Your task to perform on an android device: see creations saved in the google photos Image 0: 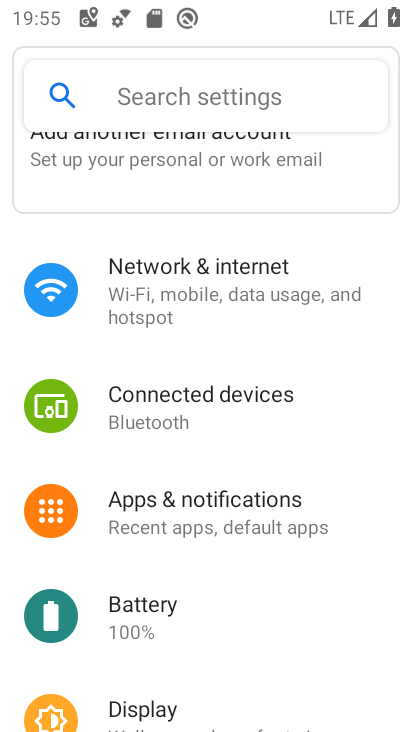
Step 0: press home button
Your task to perform on an android device: see creations saved in the google photos Image 1: 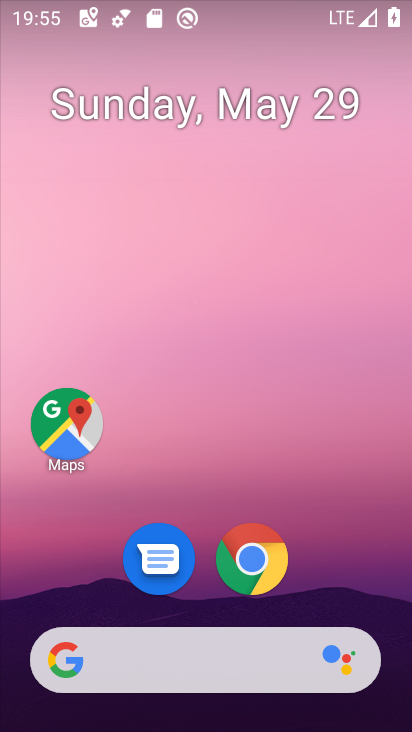
Step 1: drag from (353, 609) to (330, 242)
Your task to perform on an android device: see creations saved in the google photos Image 2: 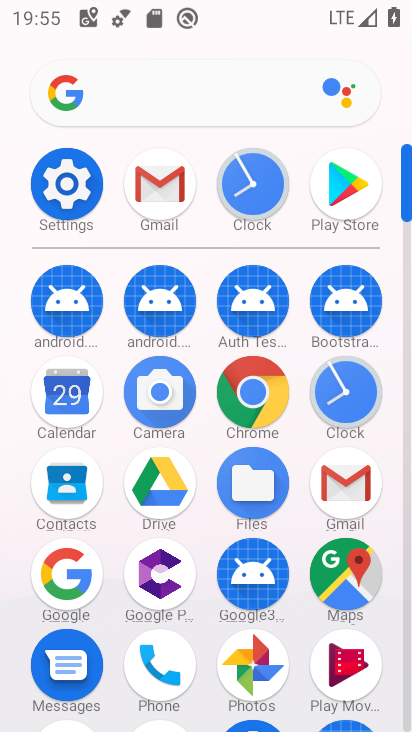
Step 2: click (261, 656)
Your task to perform on an android device: see creations saved in the google photos Image 3: 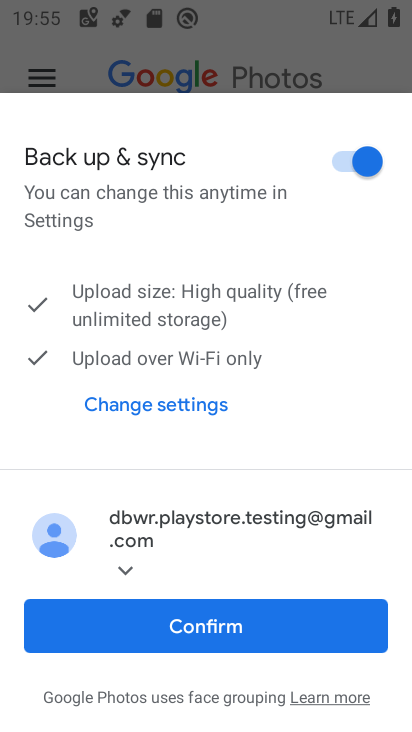
Step 3: click (261, 656)
Your task to perform on an android device: see creations saved in the google photos Image 4: 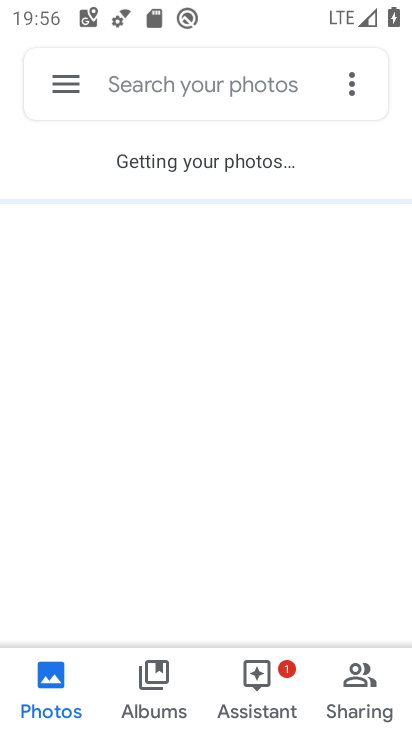
Step 4: click (244, 89)
Your task to perform on an android device: see creations saved in the google photos Image 5: 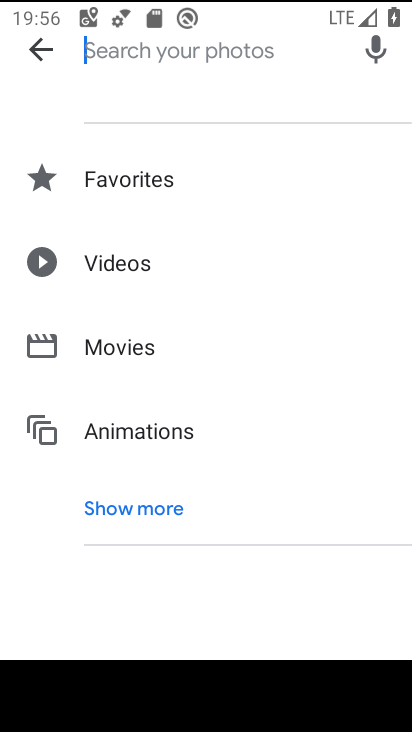
Step 5: click (171, 506)
Your task to perform on an android device: see creations saved in the google photos Image 6: 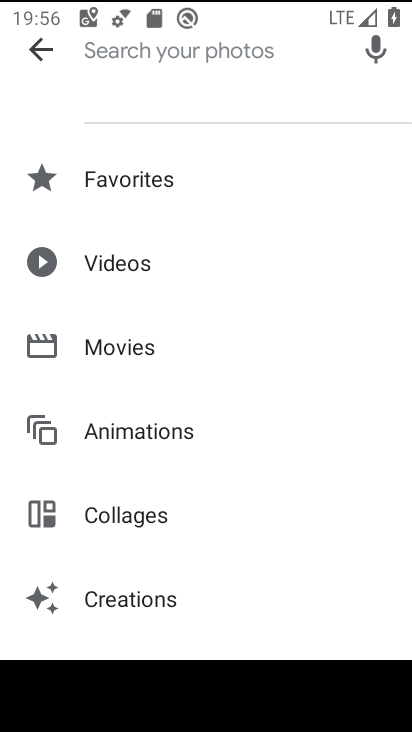
Step 6: click (151, 610)
Your task to perform on an android device: see creations saved in the google photos Image 7: 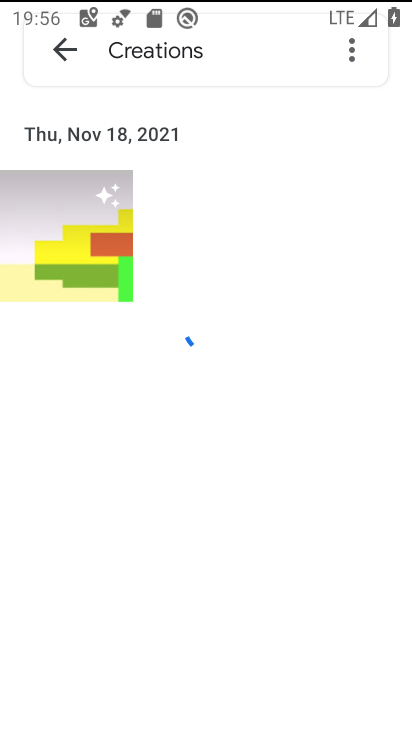
Step 7: task complete